Your task to perform on an android device: turn off javascript in the chrome app Image 0: 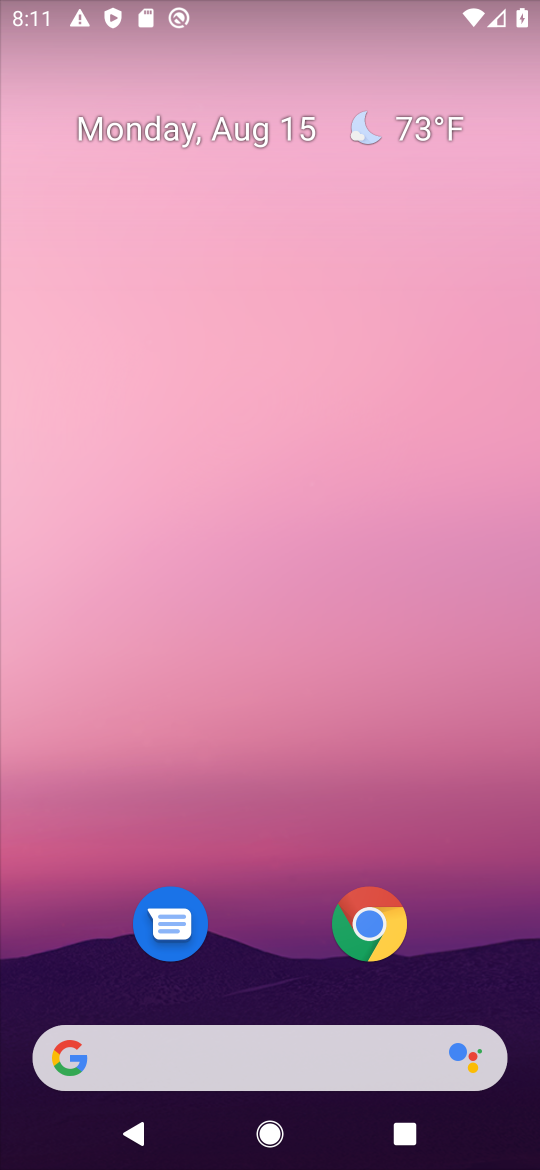
Step 0: click (373, 925)
Your task to perform on an android device: turn off javascript in the chrome app Image 1: 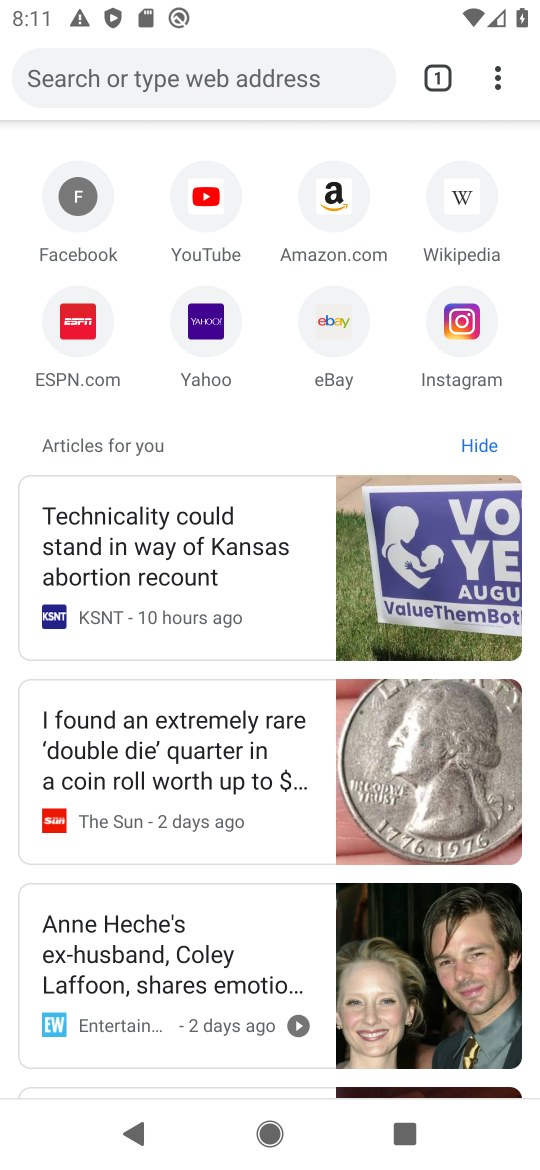
Step 1: click (497, 86)
Your task to perform on an android device: turn off javascript in the chrome app Image 2: 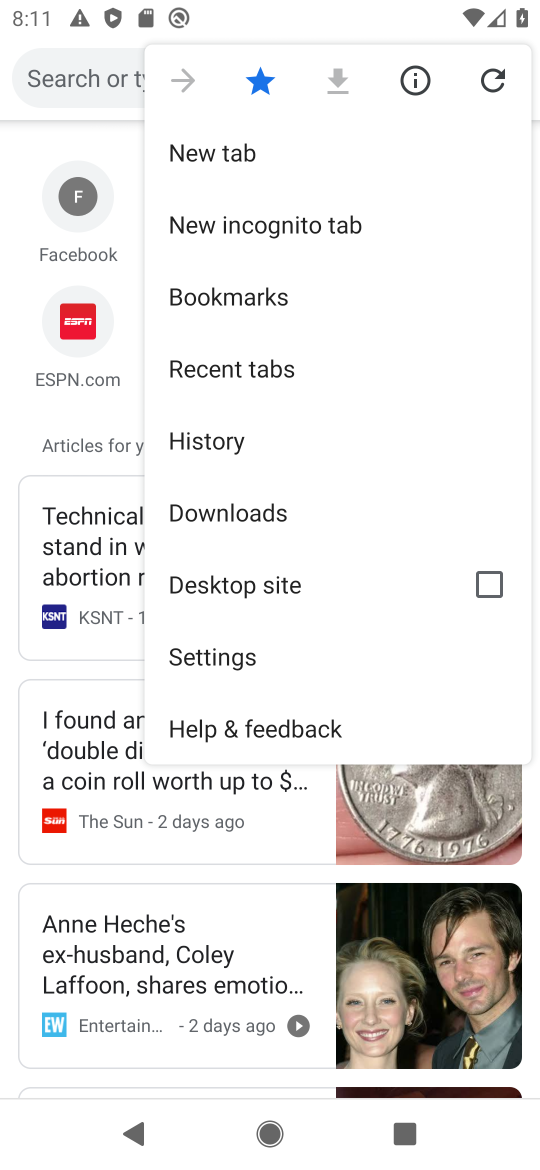
Step 2: click (210, 662)
Your task to perform on an android device: turn off javascript in the chrome app Image 3: 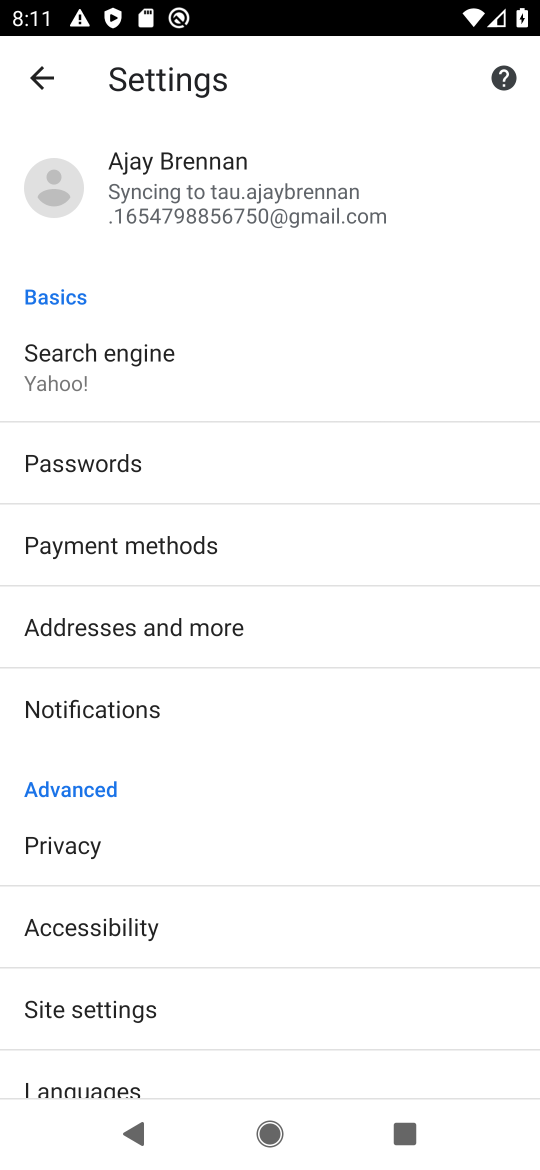
Step 3: drag from (283, 1044) to (291, 588)
Your task to perform on an android device: turn off javascript in the chrome app Image 4: 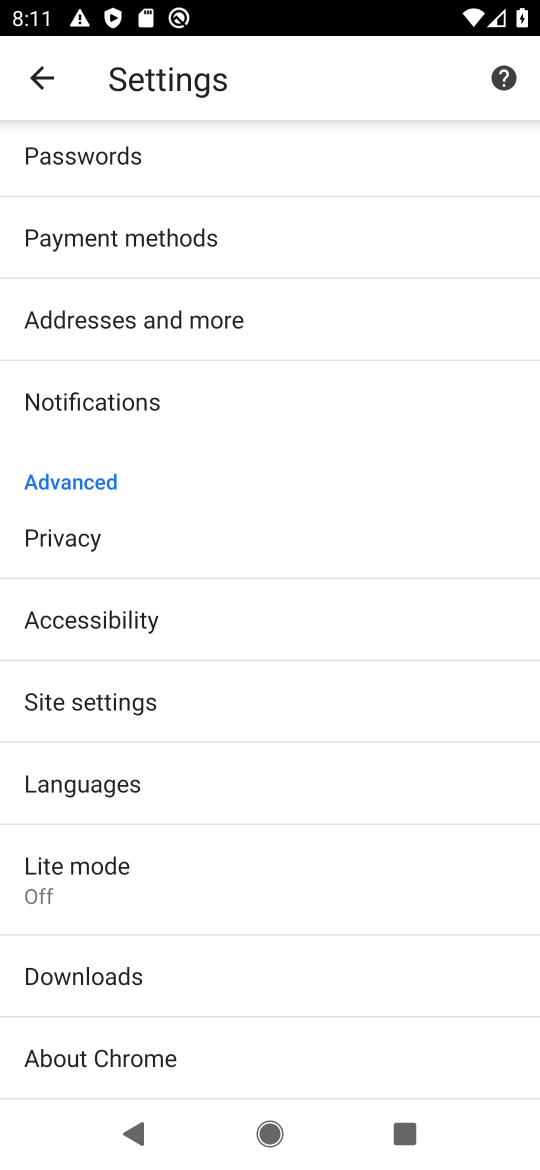
Step 4: click (79, 705)
Your task to perform on an android device: turn off javascript in the chrome app Image 5: 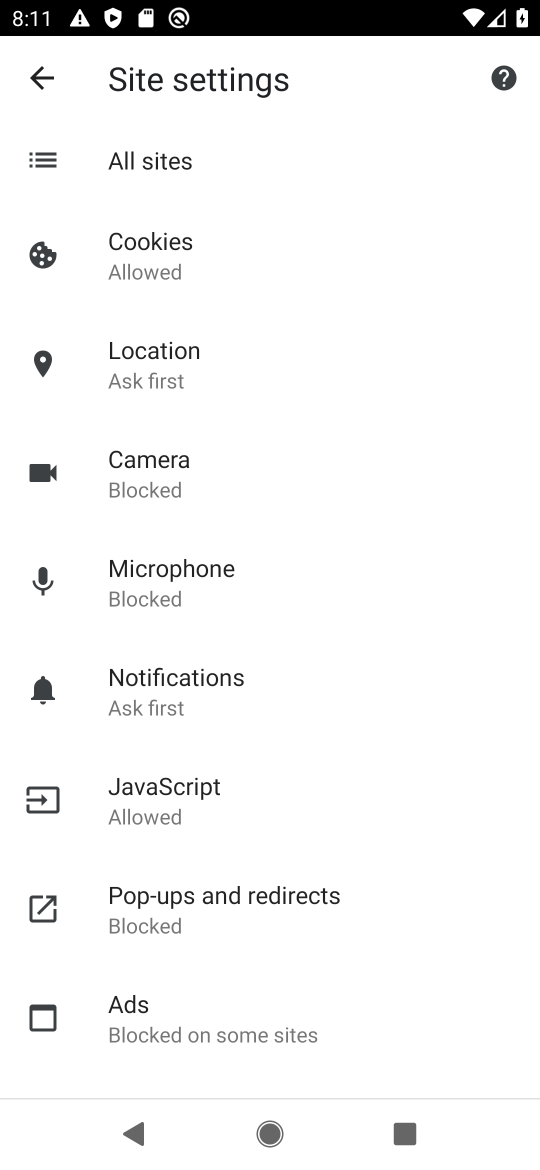
Step 5: click (135, 785)
Your task to perform on an android device: turn off javascript in the chrome app Image 6: 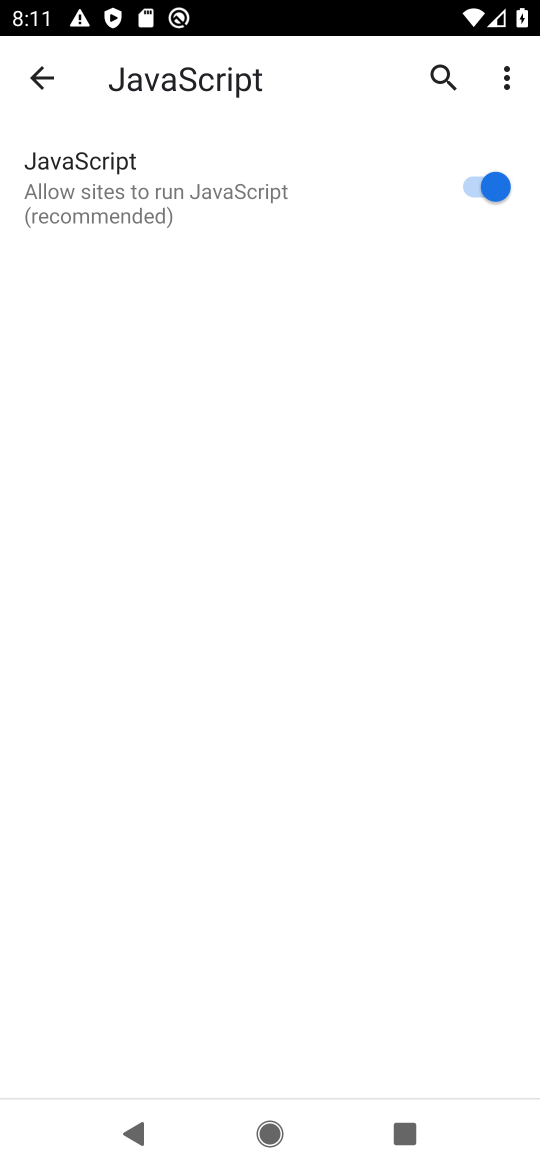
Step 6: click (468, 186)
Your task to perform on an android device: turn off javascript in the chrome app Image 7: 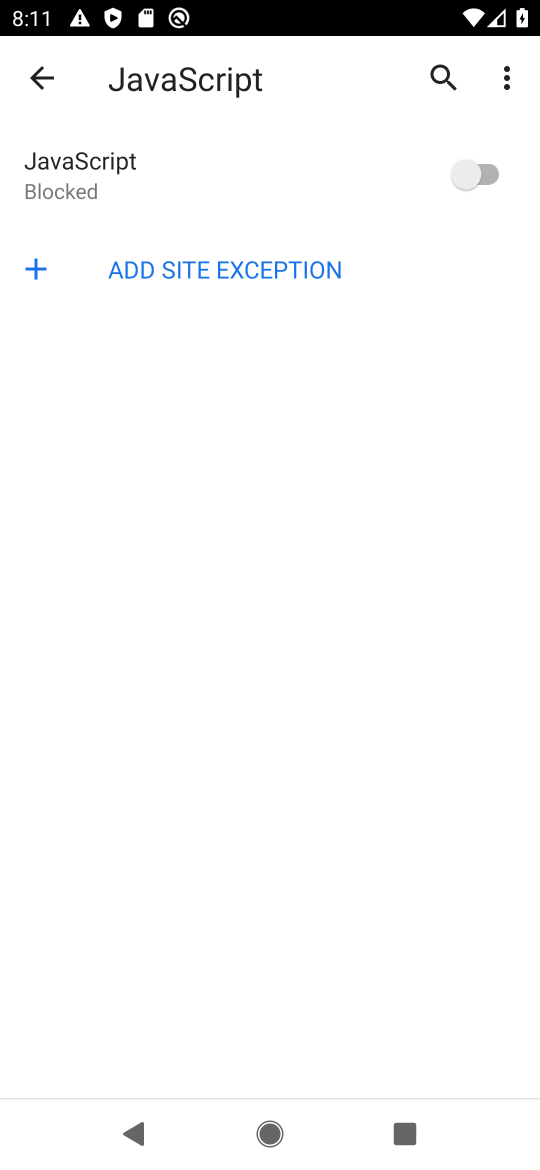
Step 7: task complete